Your task to perform on an android device: Open Youtube and go to "Your channel" Image 0: 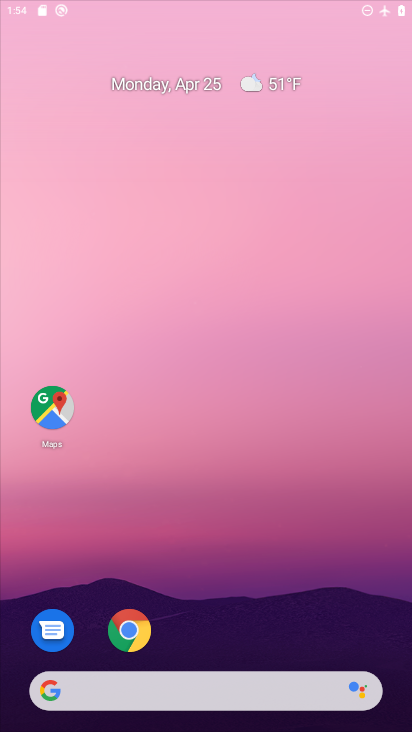
Step 0: drag from (294, 625) to (254, 94)
Your task to perform on an android device: Open Youtube and go to "Your channel" Image 1: 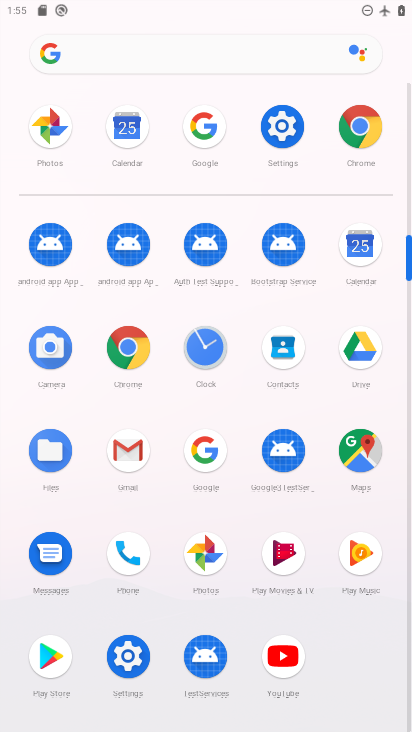
Step 1: click (278, 141)
Your task to perform on an android device: Open Youtube and go to "Your channel" Image 2: 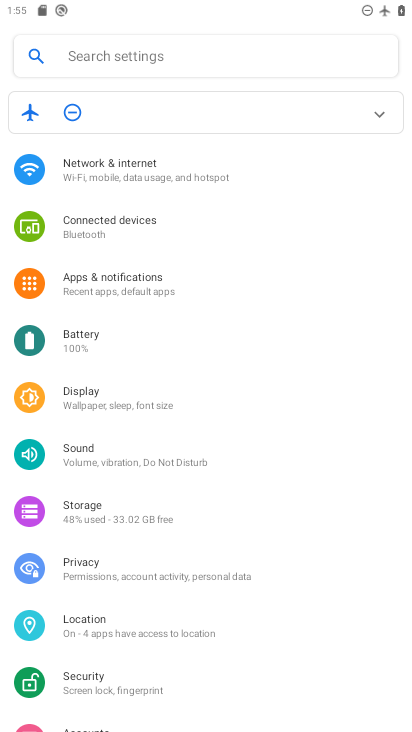
Step 2: press home button
Your task to perform on an android device: Open Youtube and go to "Your channel" Image 3: 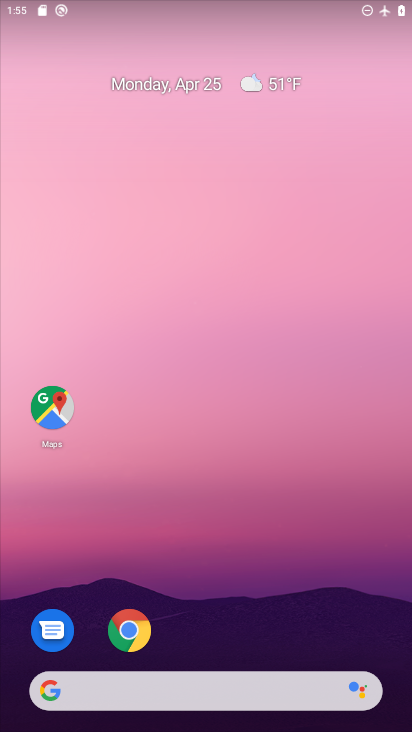
Step 3: drag from (301, 603) to (397, 59)
Your task to perform on an android device: Open Youtube and go to "Your channel" Image 4: 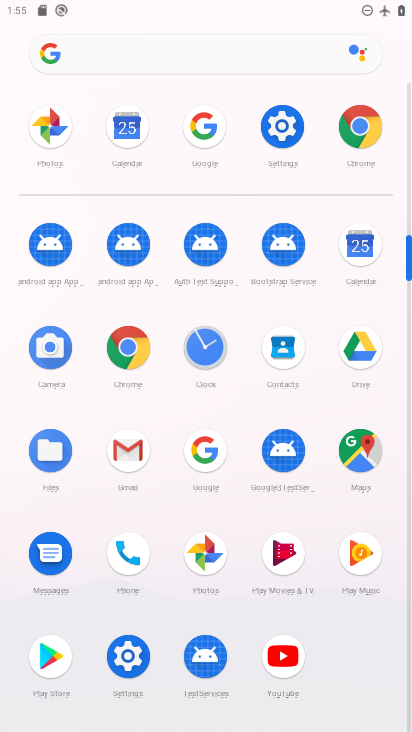
Step 4: click (277, 664)
Your task to perform on an android device: Open Youtube and go to "Your channel" Image 5: 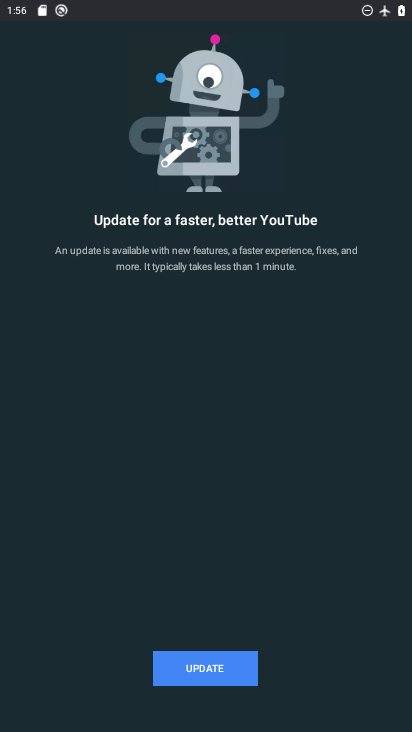
Step 5: click (212, 668)
Your task to perform on an android device: Open Youtube and go to "Your channel" Image 6: 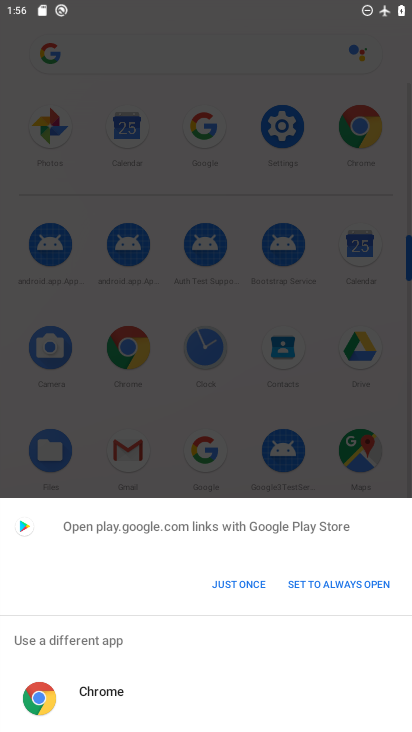
Step 6: click (237, 585)
Your task to perform on an android device: Open Youtube and go to "Your channel" Image 7: 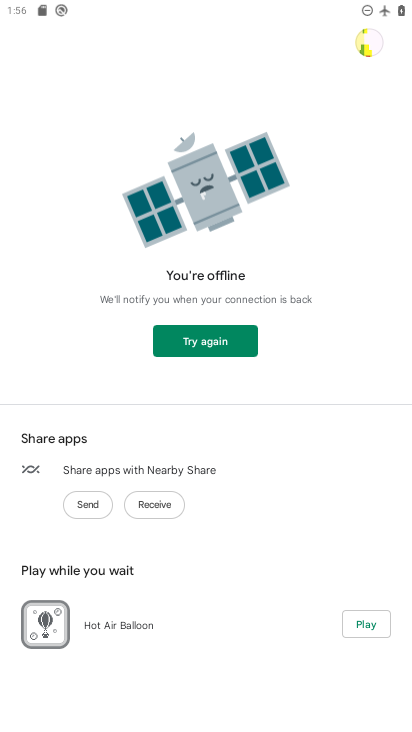
Step 7: press home button
Your task to perform on an android device: Open Youtube and go to "Your channel" Image 8: 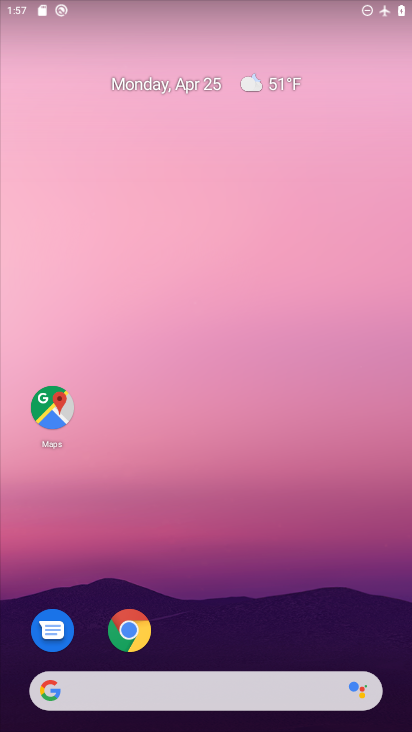
Step 8: drag from (264, 592) to (216, 28)
Your task to perform on an android device: Open Youtube and go to "Your channel" Image 9: 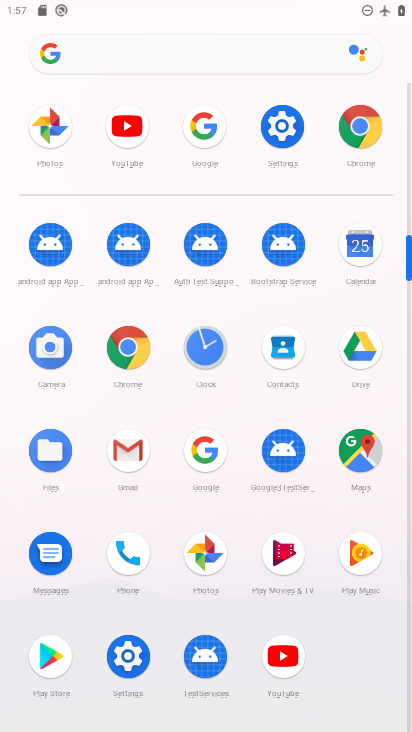
Step 9: click (281, 132)
Your task to perform on an android device: Open Youtube and go to "Your channel" Image 10: 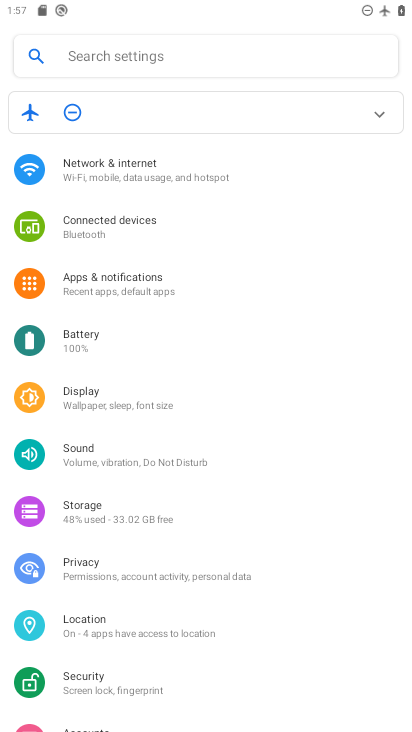
Step 10: click (137, 170)
Your task to perform on an android device: Open Youtube and go to "Your channel" Image 11: 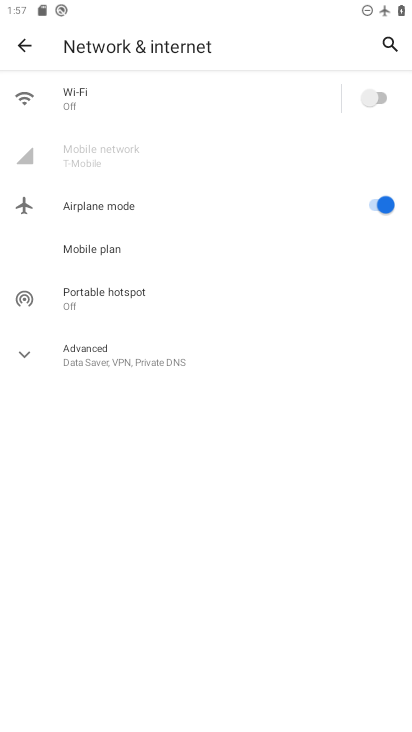
Step 11: click (384, 209)
Your task to perform on an android device: Open Youtube and go to "Your channel" Image 12: 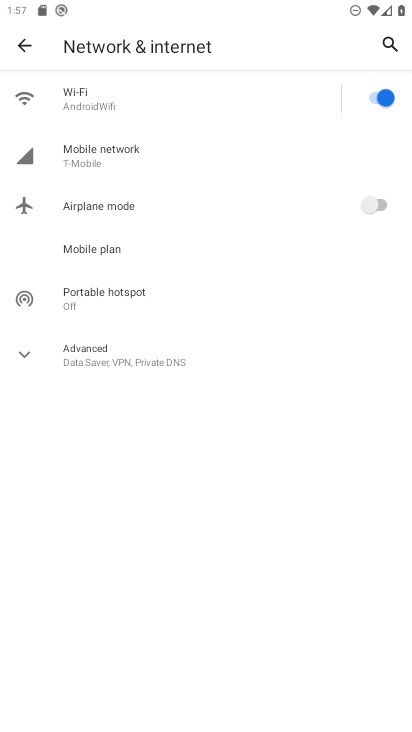
Step 12: task complete